Your task to perform on an android device: Go to Amazon Image 0: 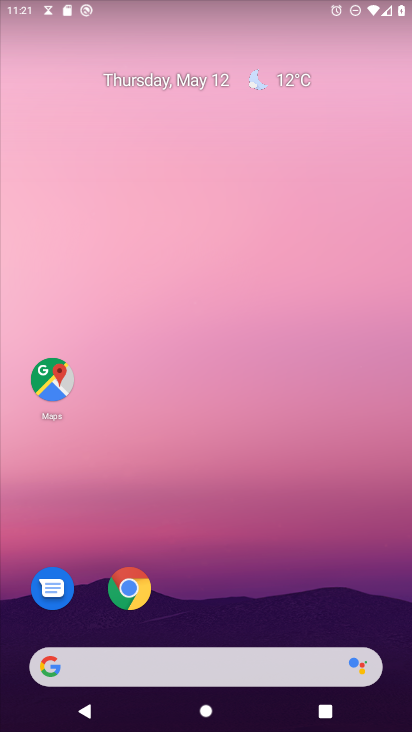
Step 0: drag from (239, 573) to (171, 132)
Your task to perform on an android device: Go to Amazon Image 1: 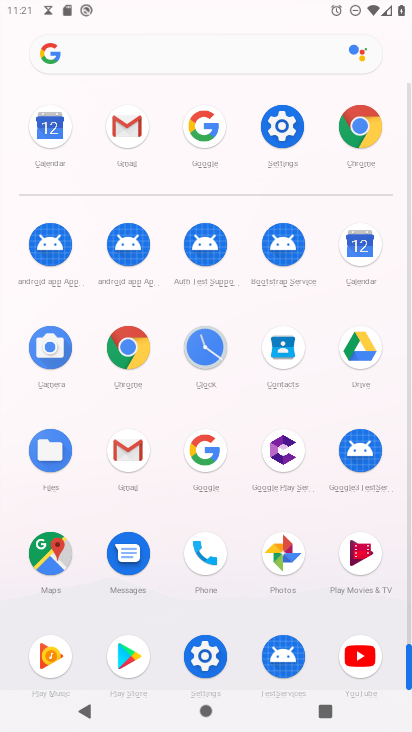
Step 1: click (201, 127)
Your task to perform on an android device: Go to Amazon Image 2: 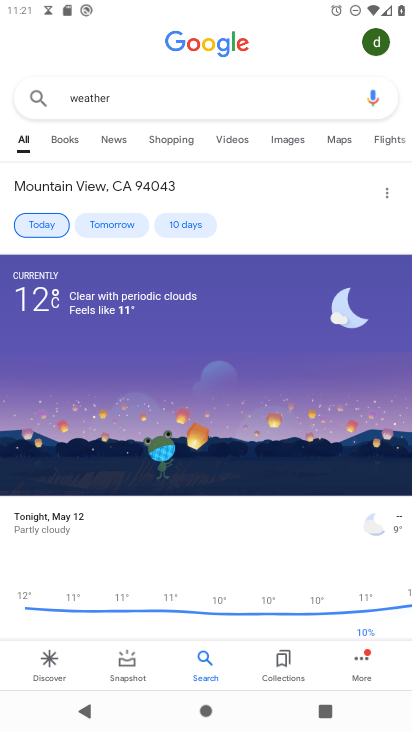
Step 2: click (209, 97)
Your task to perform on an android device: Go to Amazon Image 3: 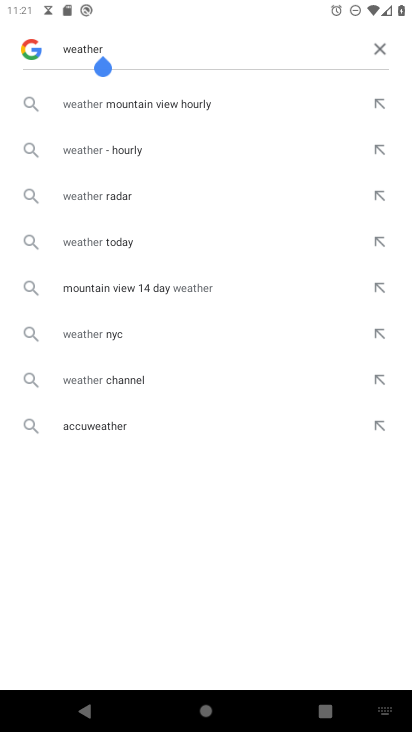
Step 3: click (380, 49)
Your task to perform on an android device: Go to Amazon Image 4: 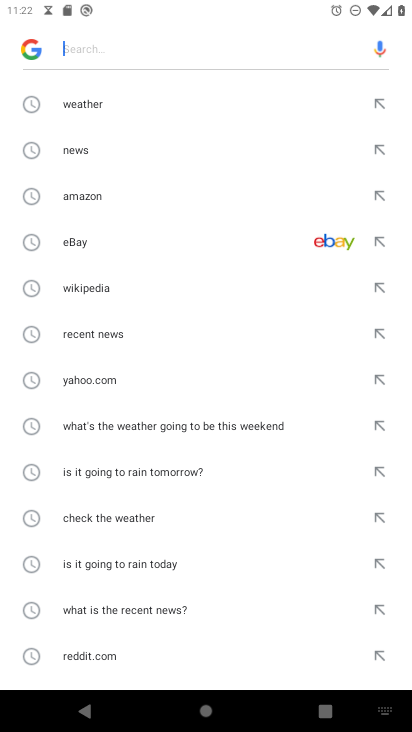
Step 4: type "Amazon"
Your task to perform on an android device: Go to Amazon Image 5: 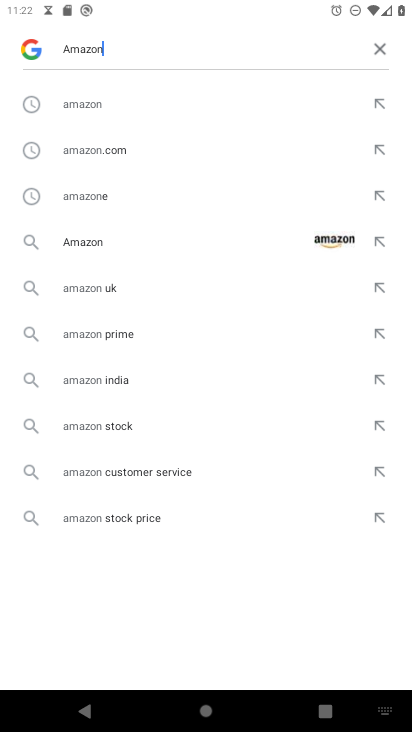
Step 5: click (96, 106)
Your task to perform on an android device: Go to Amazon Image 6: 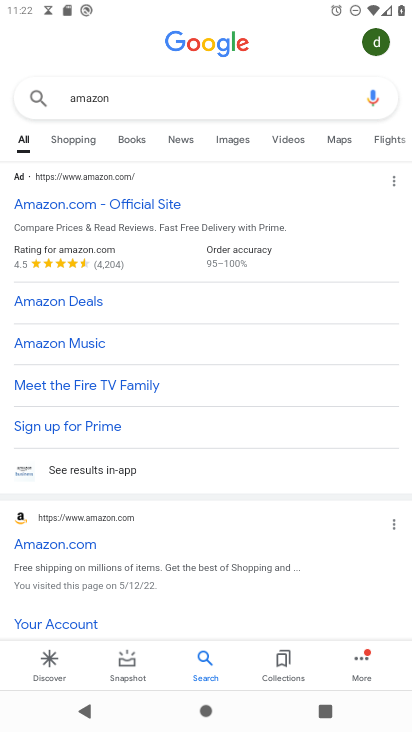
Step 6: click (120, 207)
Your task to perform on an android device: Go to Amazon Image 7: 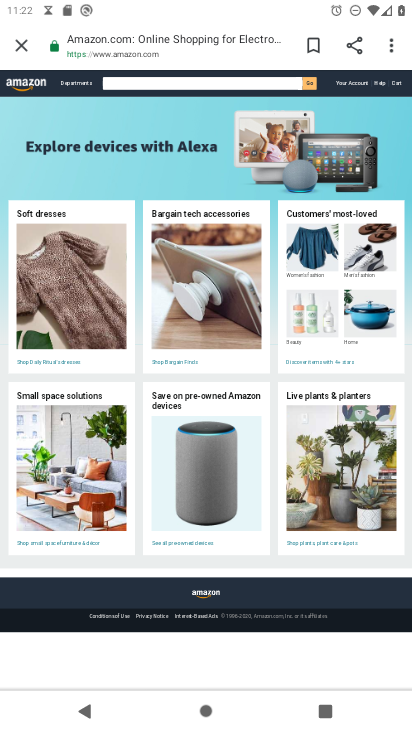
Step 7: task complete